Your task to perform on an android device: all mails in gmail Image 0: 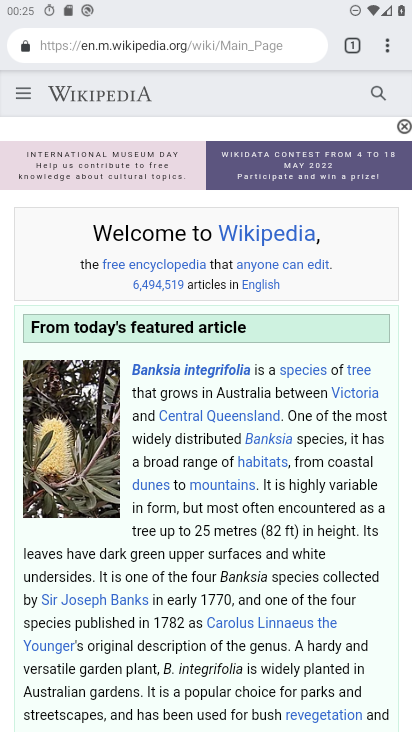
Step 0: press home button
Your task to perform on an android device: all mails in gmail Image 1: 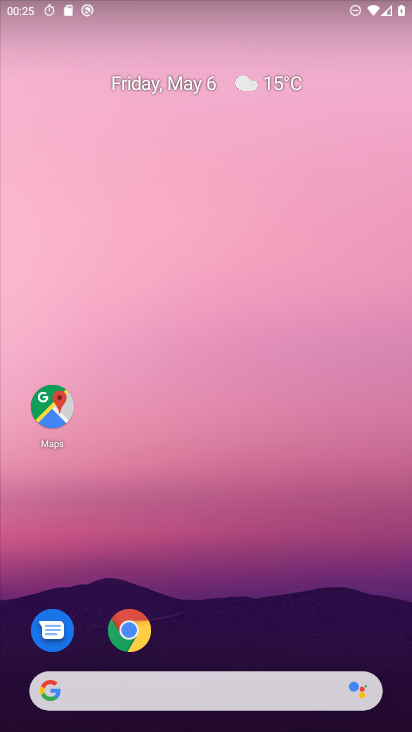
Step 1: drag from (249, 597) to (189, 116)
Your task to perform on an android device: all mails in gmail Image 2: 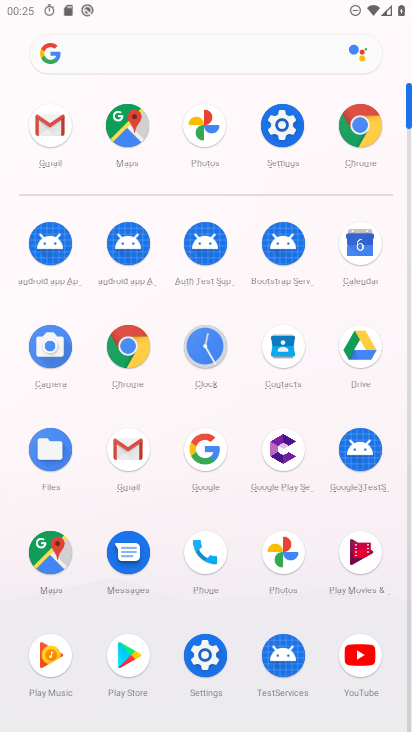
Step 2: click (129, 446)
Your task to perform on an android device: all mails in gmail Image 3: 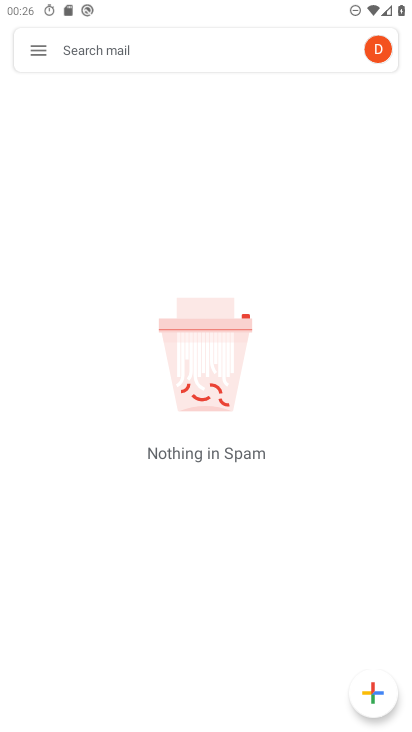
Step 3: click (41, 51)
Your task to perform on an android device: all mails in gmail Image 4: 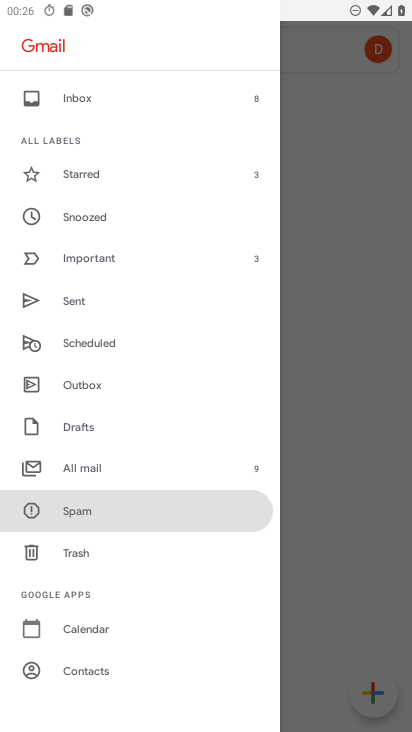
Step 4: click (80, 462)
Your task to perform on an android device: all mails in gmail Image 5: 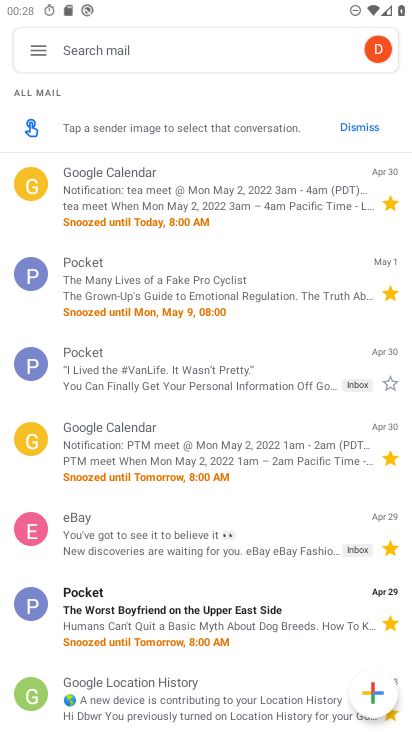
Step 5: task complete